Your task to perform on an android device: change the clock display to digital Image 0: 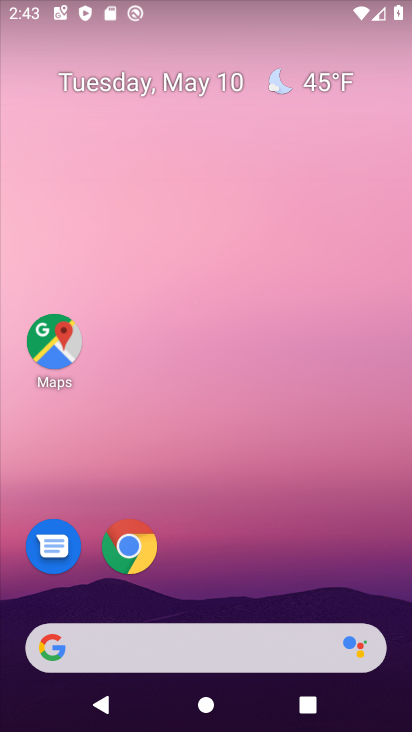
Step 0: drag from (275, 481) to (236, 2)
Your task to perform on an android device: change the clock display to digital Image 1: 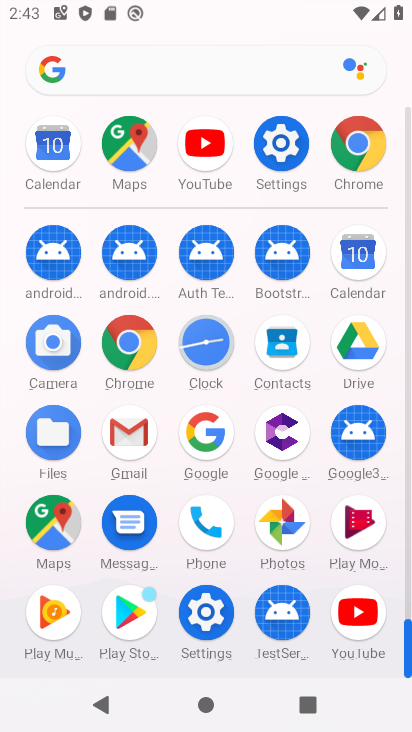
Step 1: drag from (3, 465) to (6, 144)
Your task to perform on an android device: change the clock display to digital Image 2: 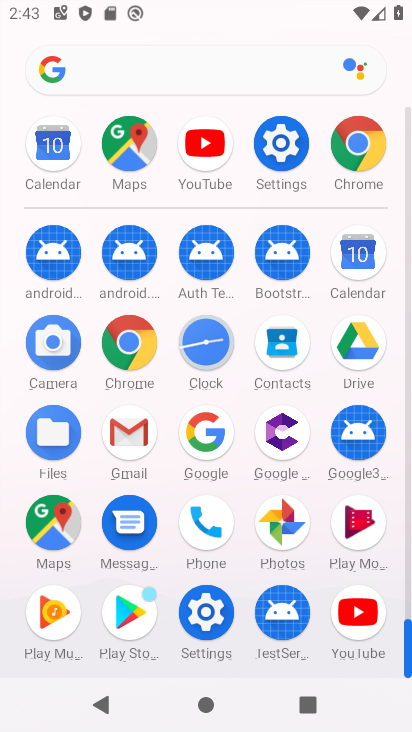
Step 2: click (207, 337)
Your task to perform on an android device: change the clock display to digital Image 3: 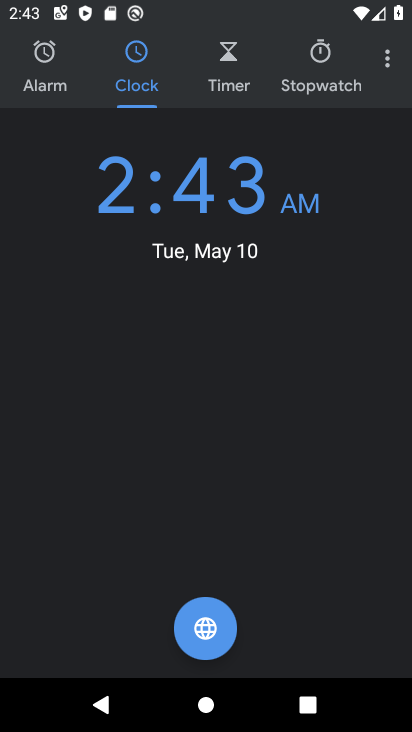
Step 3: task complete